Your task to perform on an android device: Open location settings Image 0: 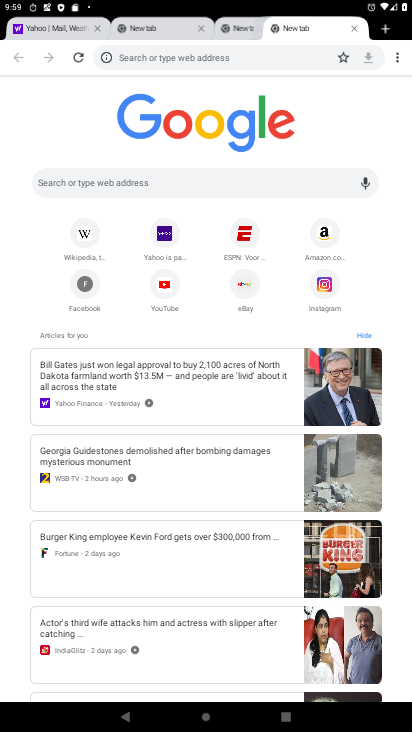
Step 0: press home button
Your task to perform on an android device: Open location settings Image 1: 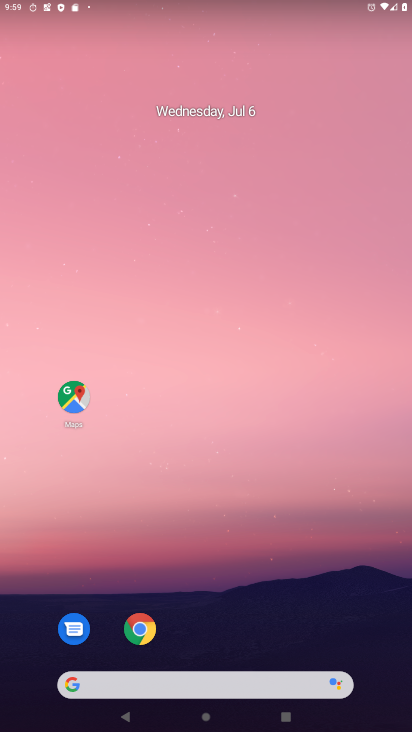
Step 1: drag from (97, 459) to (333, 45)
Your task to perform on an android device: Open location settings Image 2: 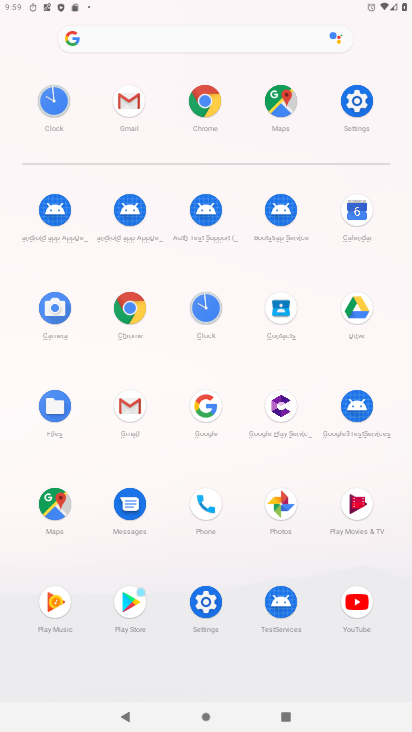
Step 2: click (353, 88)
Your task to perform on an android device: Open location settings Image 3: 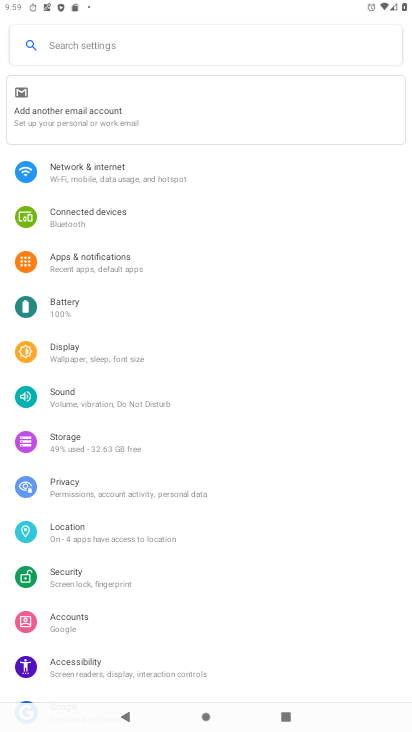
Step 3: click (83, 533)
Your task to perform on an android device: Open location settings Image 4: 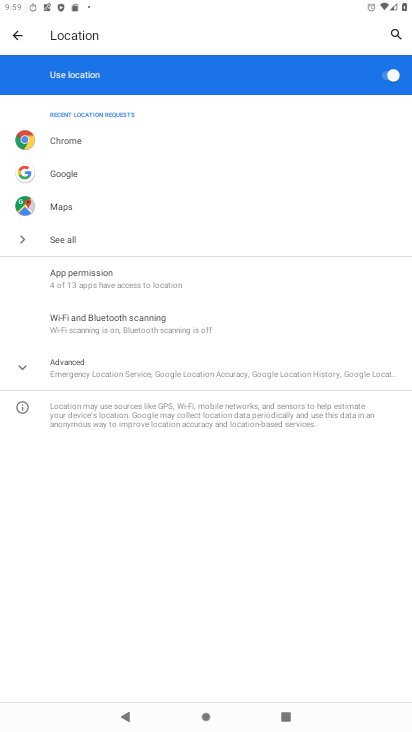
Step 4: task complete